Your task to perform on an android device: change the clock style Image 0: 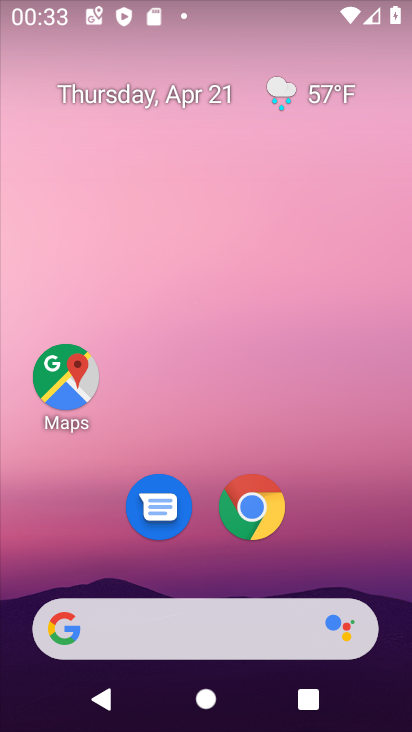
Step 0: drag from (193, 551) to (211, 106)
Your task to perform on an android device: change the clock style Image 1: 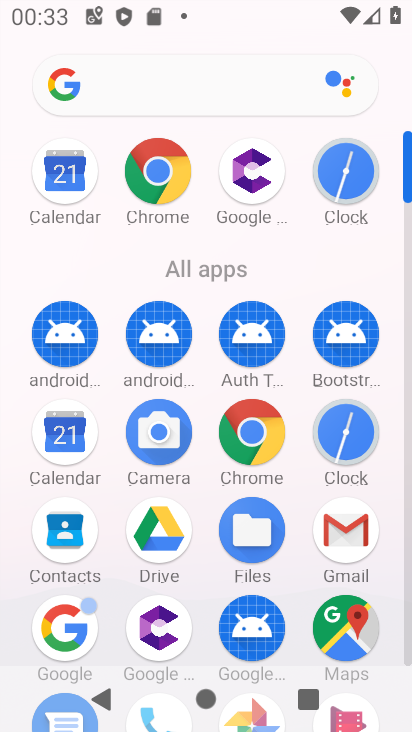
Step 1: drag from (203, 647) to (234, 127)
Your task to perform on an android device: change the clock style Image 2: 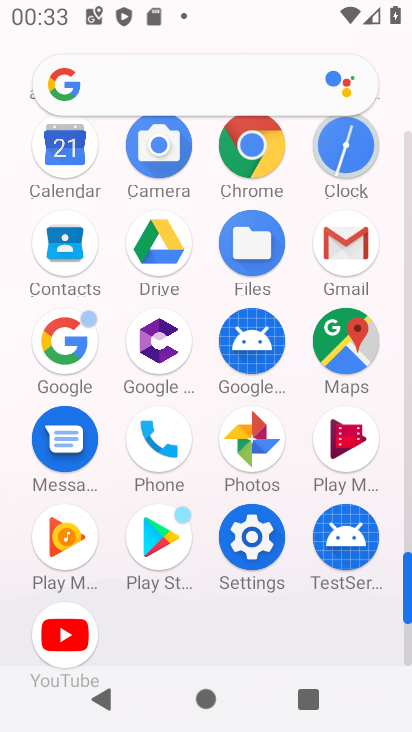
Step 2: click (358, 158)
Your task to perform on an android device: change the clock style Image 3: 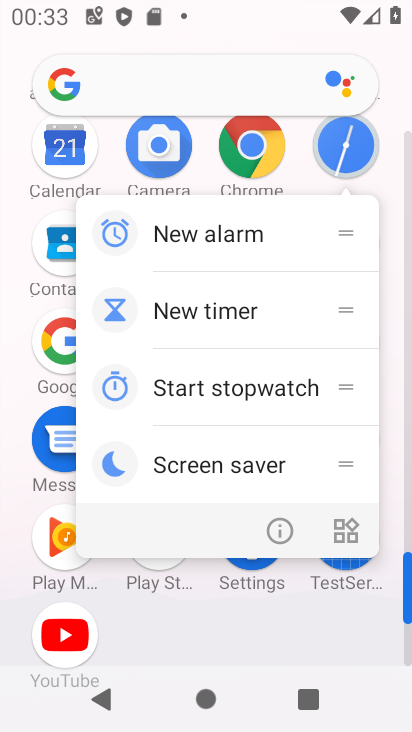
Step 3: click (286, 529)
Your task to perform on an android device: change the clock style Image 4: 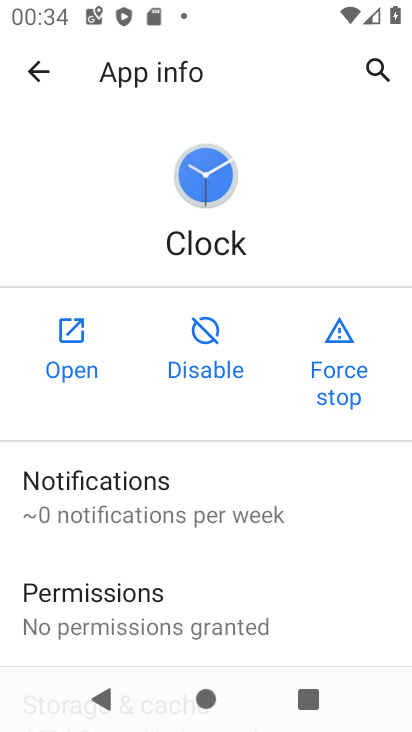
Step 4: click (42, 353)
Your task to perform on an android device: change the clock style Image 5: 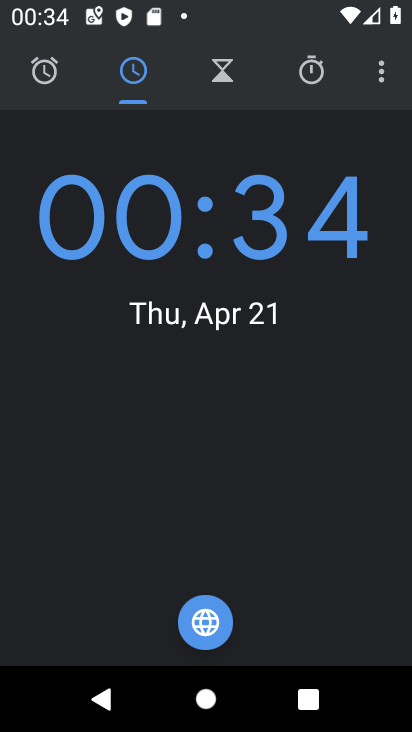
Step 5: click (393, 69)
Your task to perform on an android device: change the clock style Image 6: 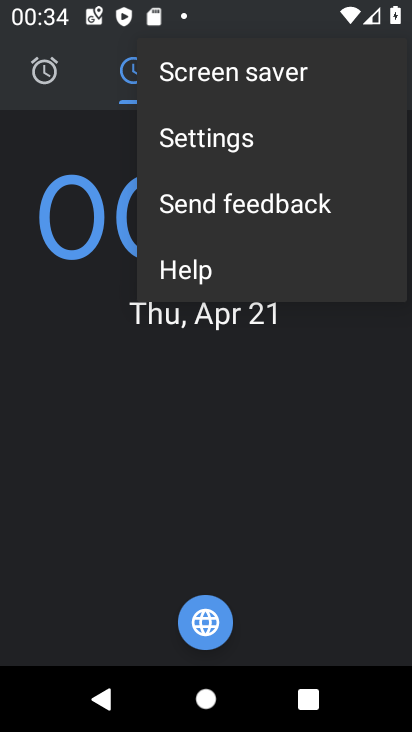
Step 6: click (249, 137)
Your task to perform on an android device: change the clock style Image 7: 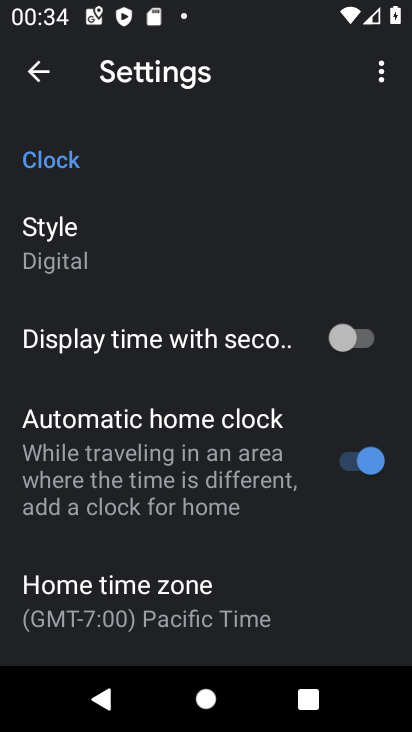
Step 7: drag from (177, 560) to (247, 166)
Your task to perform on an android device: change the clock style Image 8: 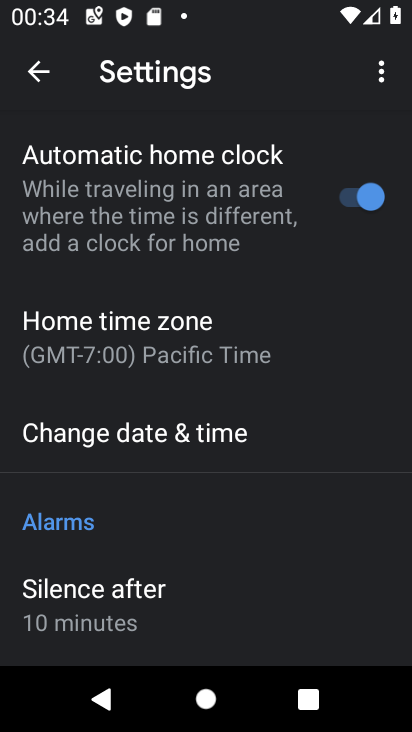
Step 8: drag from (177, 258) to (325, 708)
Your task to perform on an android device: change the clock style Image 9: 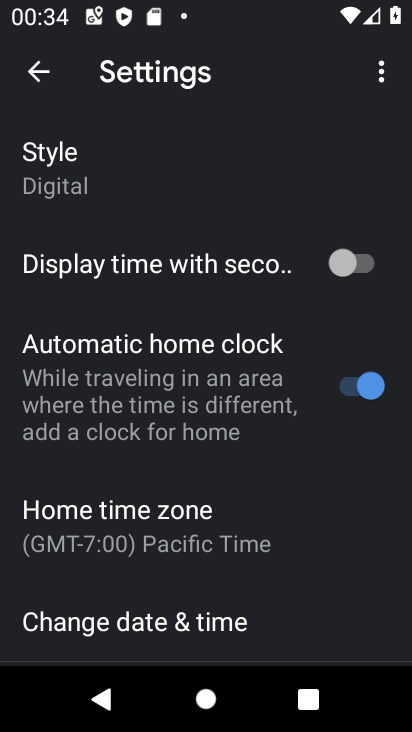
Step 9: click (178, 189)
Your task to perform on an android device: change the clock style Image 10: 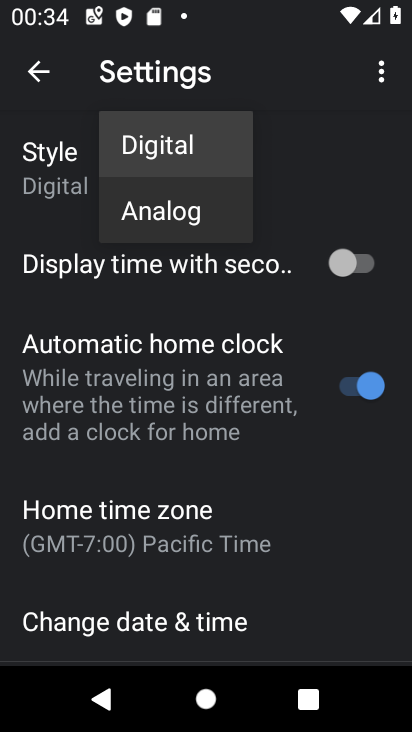
Step 10: click (173, 200)
Your task to perform on an android device: change the clock style Image 11: 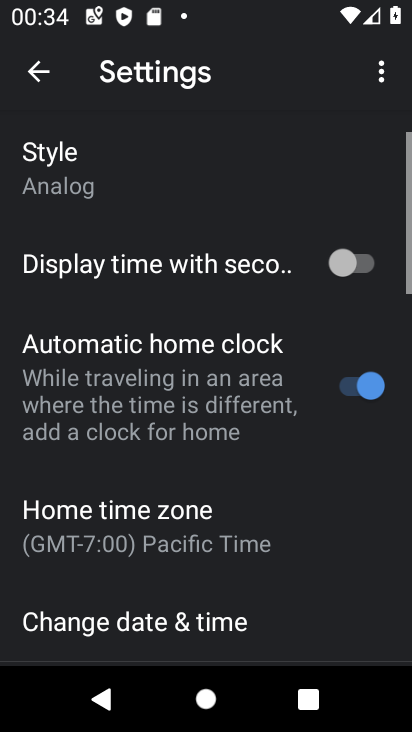
Step 11: task complete